Your task to perform on an android device: open app "Paramount+ | Peak Streaming" (install if not already installed) and enter user name: "fostered@yahoo.com" and password: "strong" Image 0: 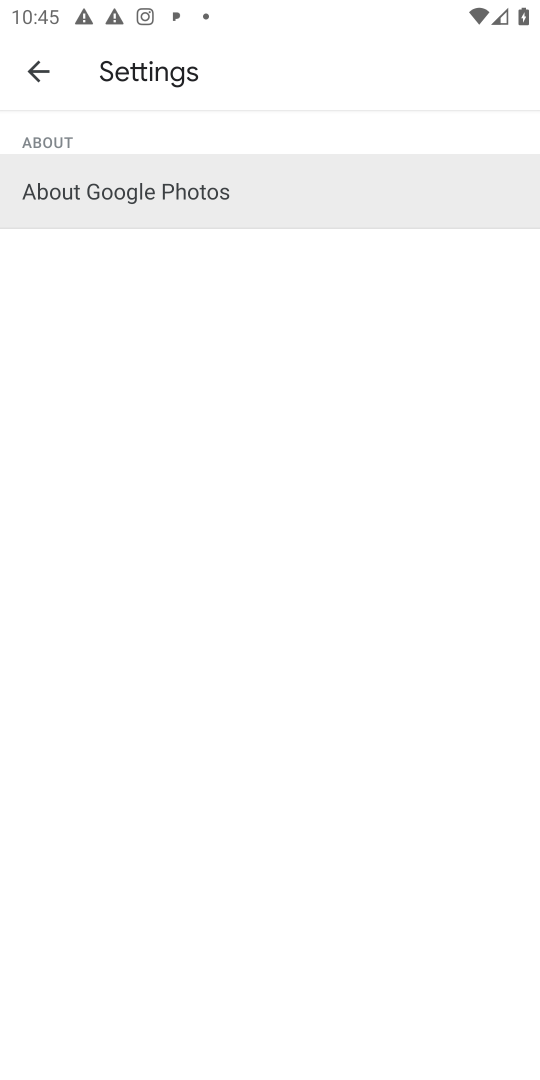
Step 0: press home button
Your task to perform on an android device: open app "Paramount+ | Peak Streaming" (install if not already installed) and enter user name: "fostered@yahoo.com" and password: "strong" Image 1: 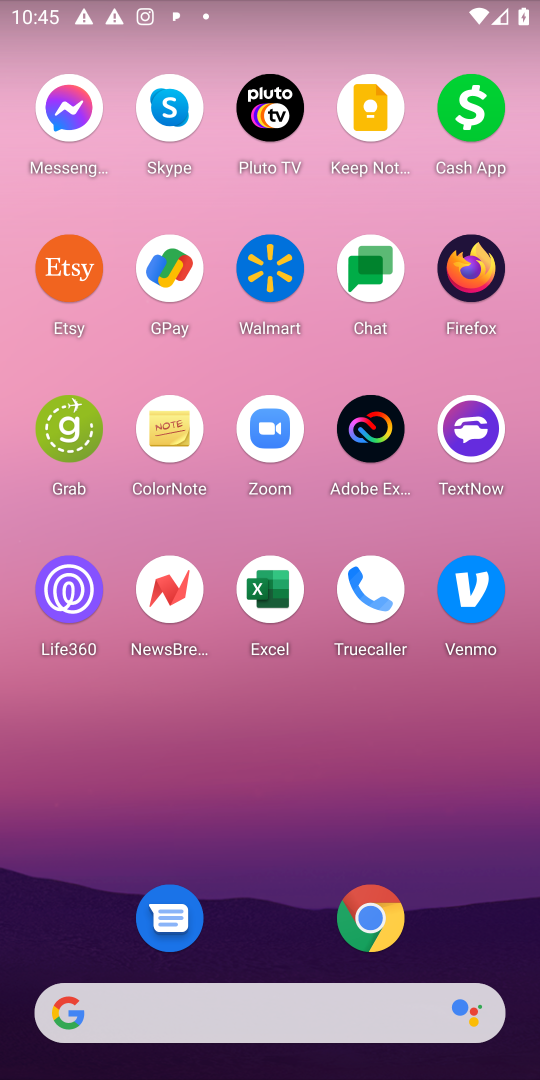
Step 1: press home button
Your task to perform on an android device: open app "Paramount+ | Peak Streaming" (install if not already installed) and enter user name: "fostered@yahoo.com" and password: "strong" Image 2: 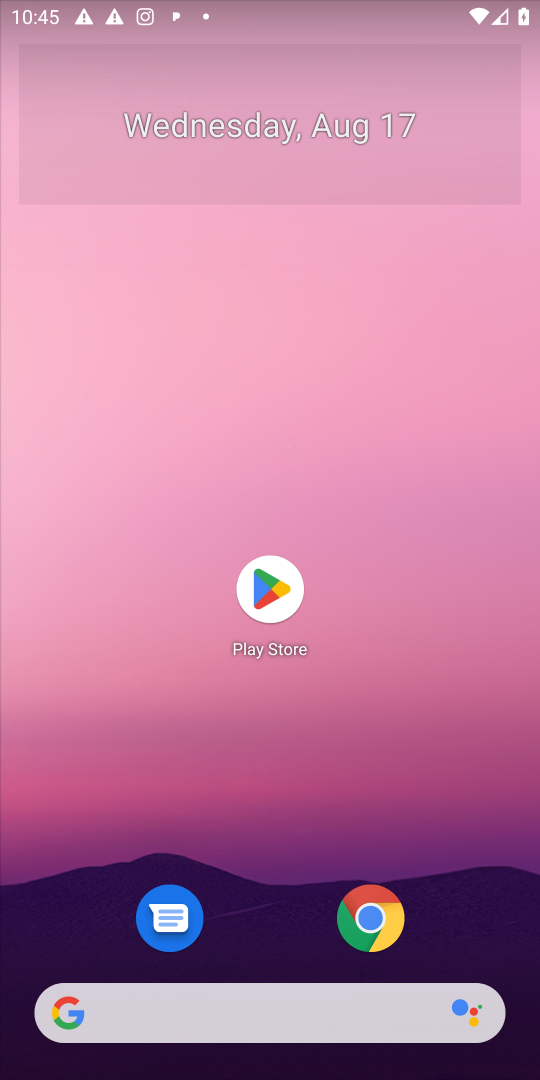
Step 2: click (268, 589)
Your task to perform on an android device: open app "Paramount+ | Peak Streaming" (install if not already installed) and enter user name: "fostered@yahoo.com" and password: "strong" Image 3: 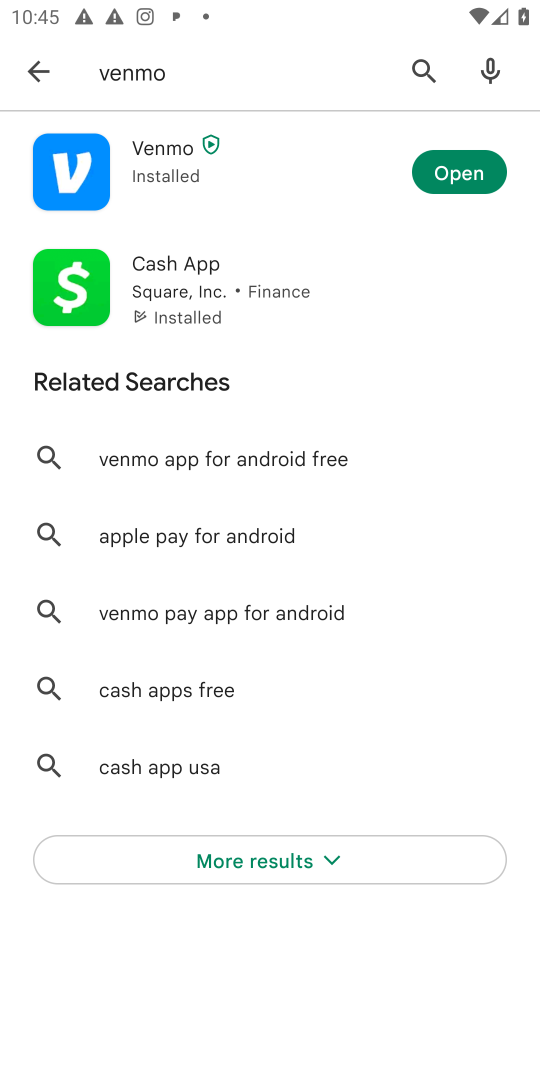
Step 3: click (421, 70)
Your task to perform on an android device: open app "Paramount+ | Peak Streaming" (install if not already installed) and enter user name: "fostered@yahoo.com" and password: "strong" Image 4: 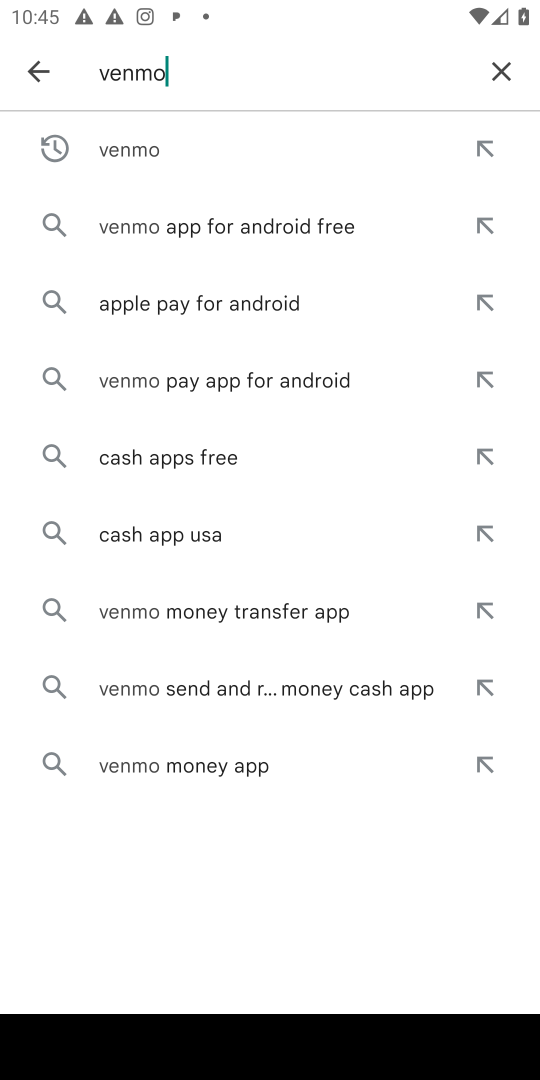
Step 4: click (506, 69)
Your task to perform on an android device: open app "Paramount+ | Peak Streaming" (install if not already installed) and enter user name: "fostered@yahoo.com" and password: "strong" Image 5: 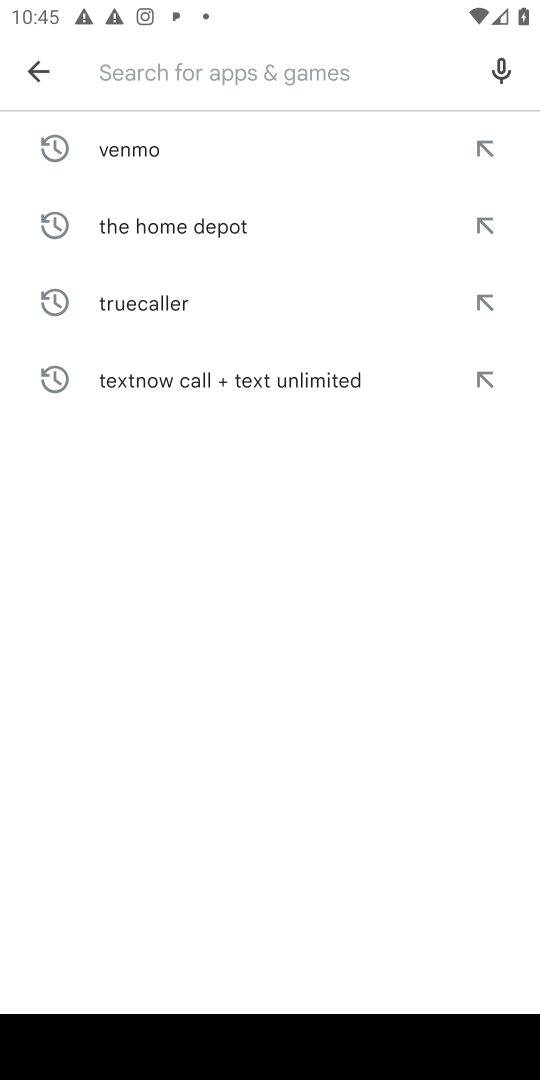
Step 5: type "Paramount+ | Peak Streaming"
Your task to perform on an android device: open app "Paramount+ | Peak Streaming" (install if not already installed) and enter user name: "fostered@yahoo.com" and password: "strong" Image 6: 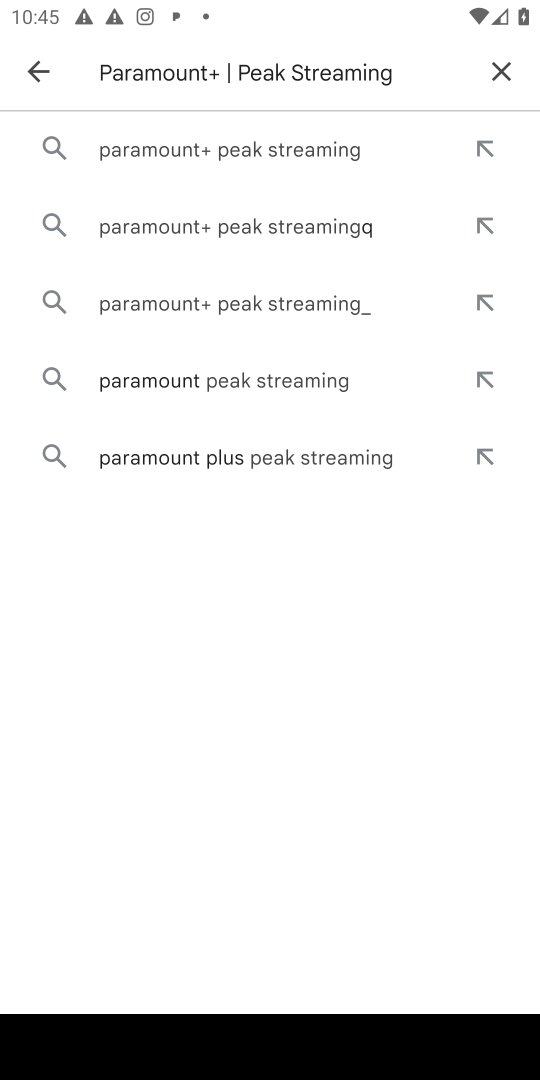
Step 6: click (184, 155)
Your task to perform on an android device: open app "Paramount+ | Peak Streaming" (install if not already installed) and enter user name: "fostered@yahoo.com" and password: "strong" Image 7: 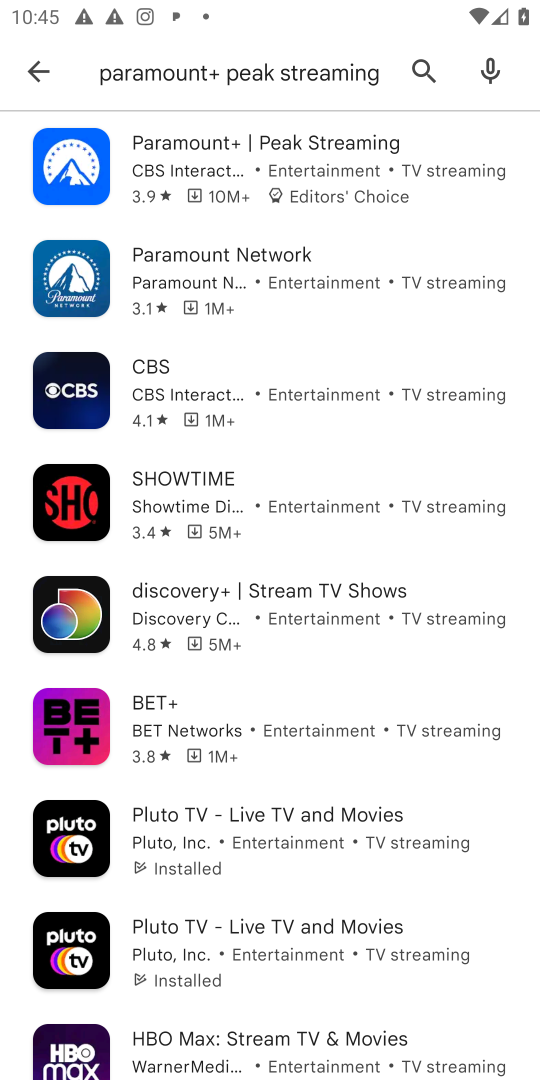
Step 7: click (235, 171)
Your task to perform on an android device: open app "Paramount+ | Peak Streaming" (install if not already installed) and enter user name: "fostered@yahoo.com" and password: "strong" Image 8: 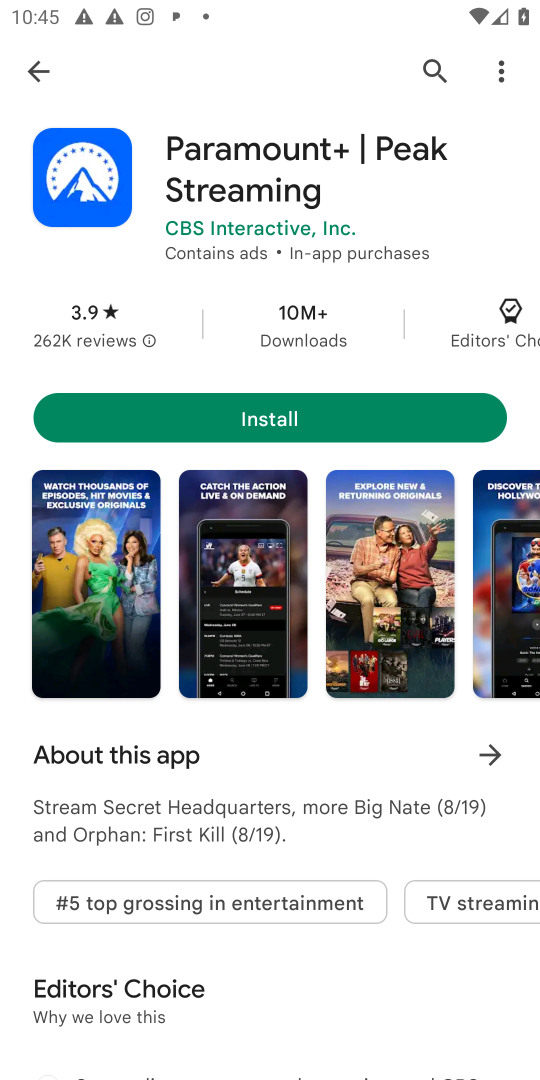
Step 8: click (256, 411)
Your task to perform on an android device: open app "Paramount+ | Peak Streaming" (install if not already installed) and enter user name: "fostered@yahoo.com" and password: "strong" Image 9: 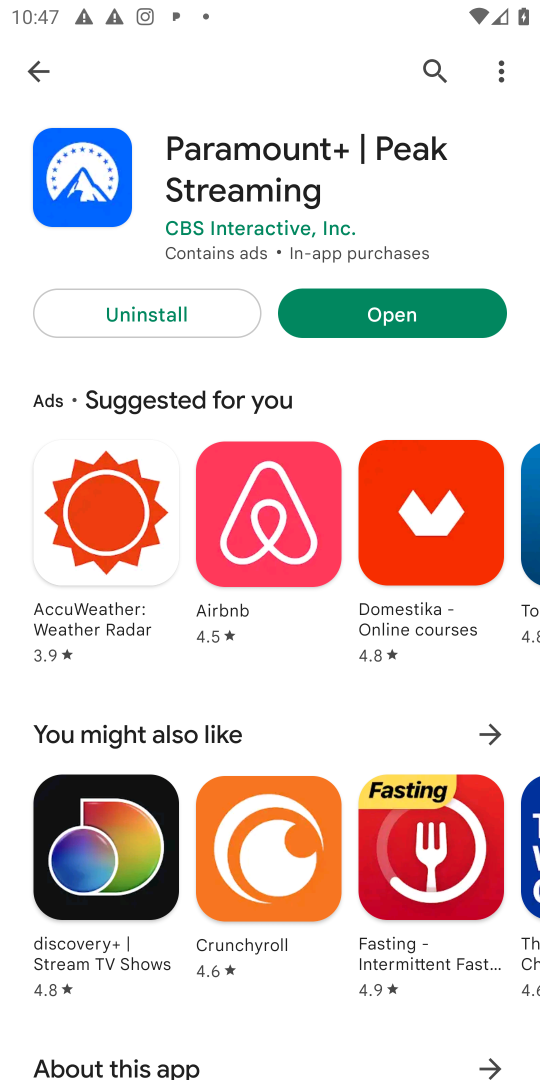
Step 9: click (431, 307)
Your task to perform on an android device: open app "Paramount+ | Peak Streaming" (install if not already installed) and enter user name: "fostered@yahoo.com" and password: "strong" Image 10: 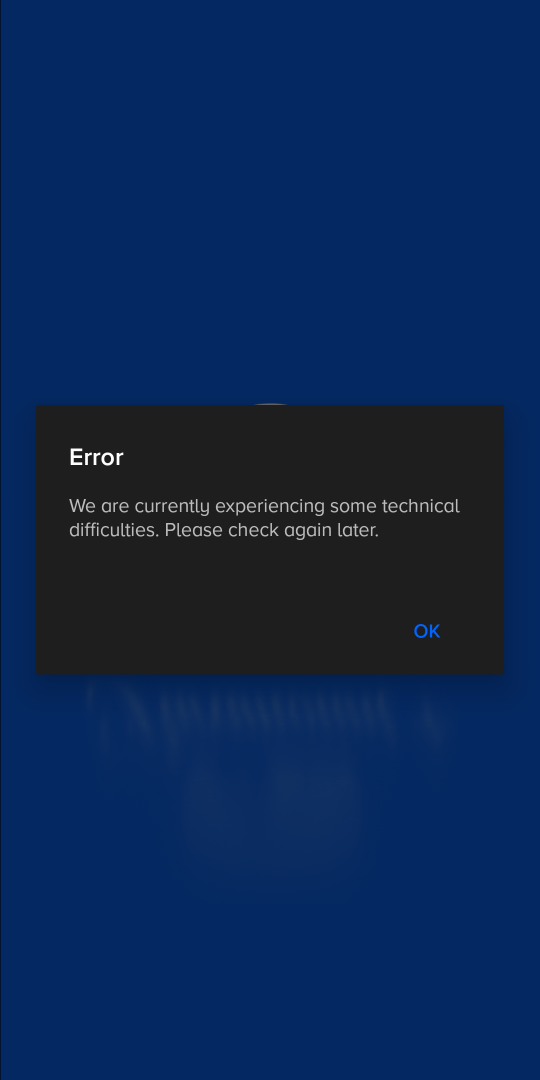
Step 10: task complete